Your task to perform on an android device: change the clock display to show seconds Image 0: 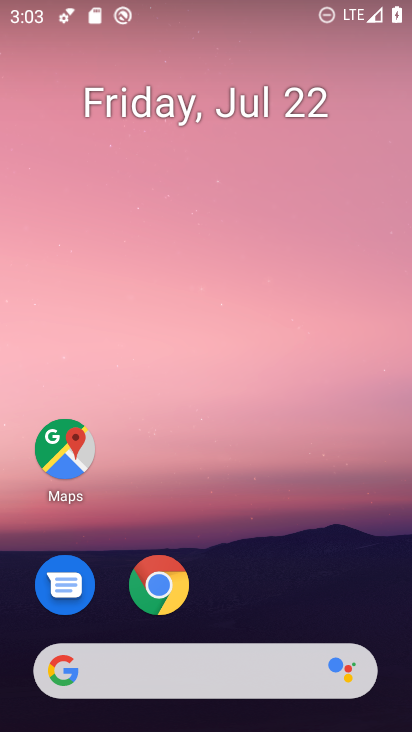
Step 0: drag from (270, 577) to (288, 68)
Your task to perform on an android device: change the clock display to show seconds Image 1: 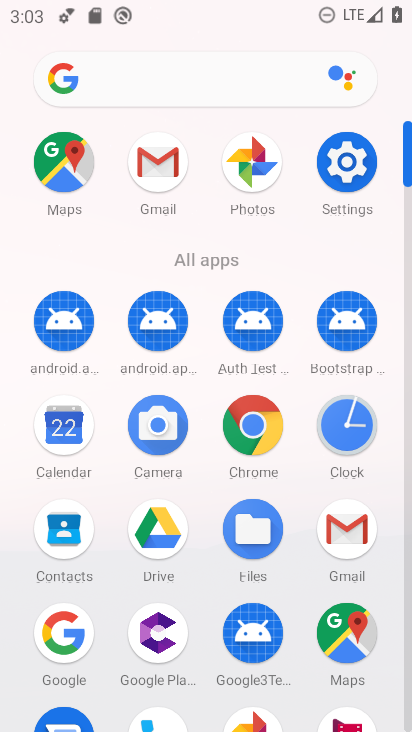
Step 1: click (349, 424)
Your task to perform on an android device: change the clock display to show seconds Image 2: 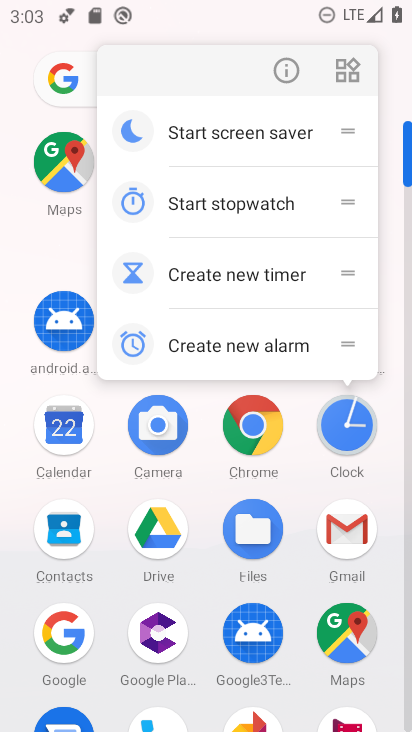
Step 2: click (349, 424)
Your task to perform on an android device: change the clock display to show seconds Image 3: 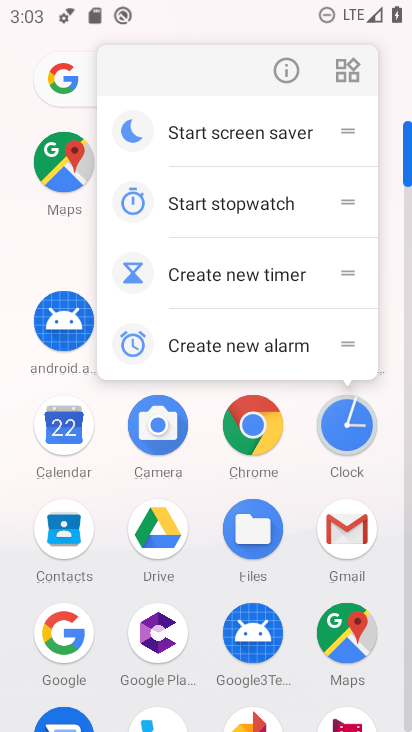
Step 3: click (349, 423)
Your task to perform on an android device: change the clock display to show seconds Image 4: 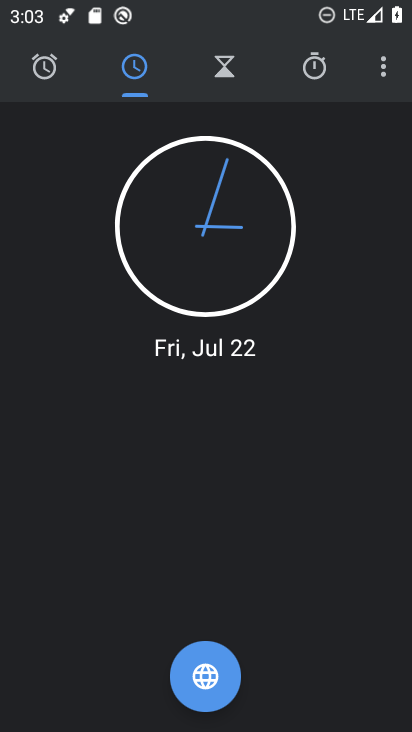
Step 4: click (382, 65)
Your task to perform on an android device: change the clock display to show seconds Image 5: 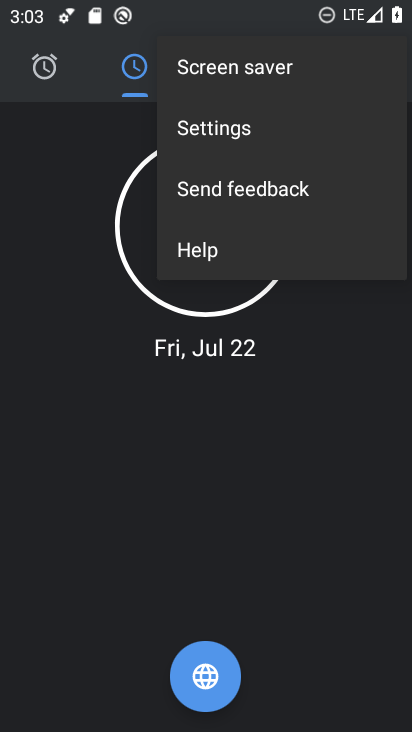
Step 5: click (276, 133)
Your task to perform on an android device: change the clock display to show seconds Image 6: 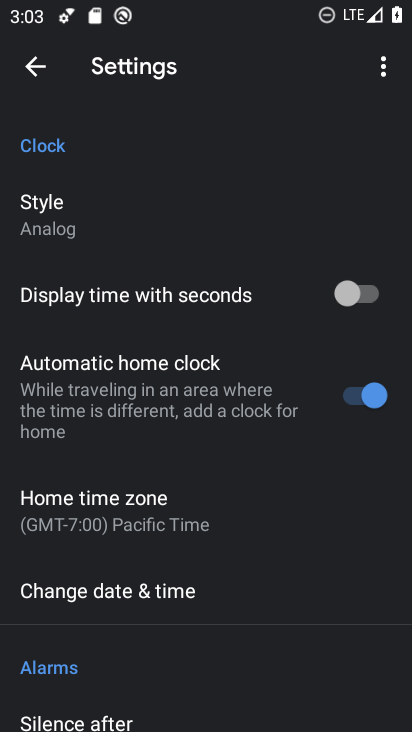
Step 6: click (366, 290)
Your task to perform on an android device: change the clock display to show seconds Image 7: 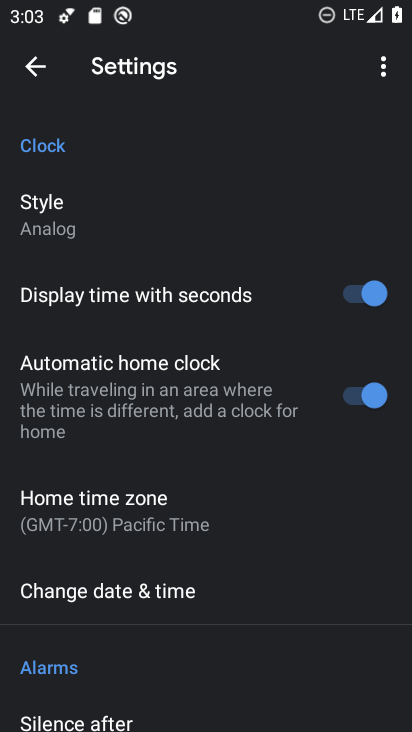
Step 7: task complete